Your task to perform on an android device: turn off airplane mode Image 0: 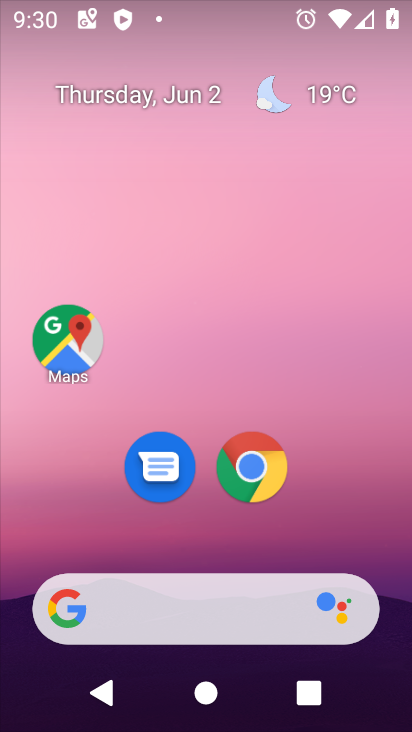
Step 0: drag from (215, 543) to (211, 15)
Your task to perform on an android device: turn off airplane mode Image 1: 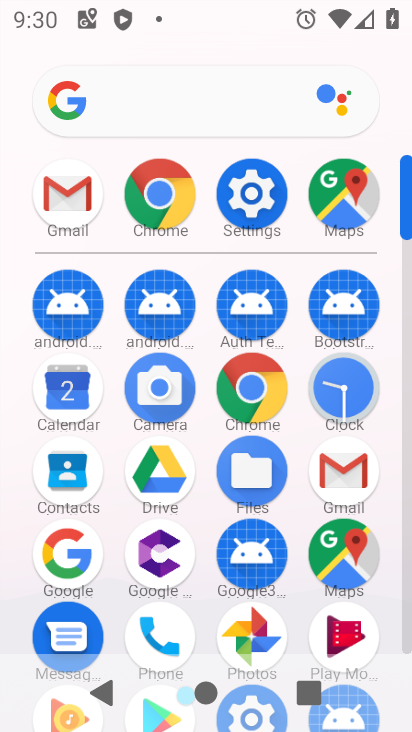
Step 1: click (255, 208)
Your task to perform on an android device: turn off airplane mode Image 2: 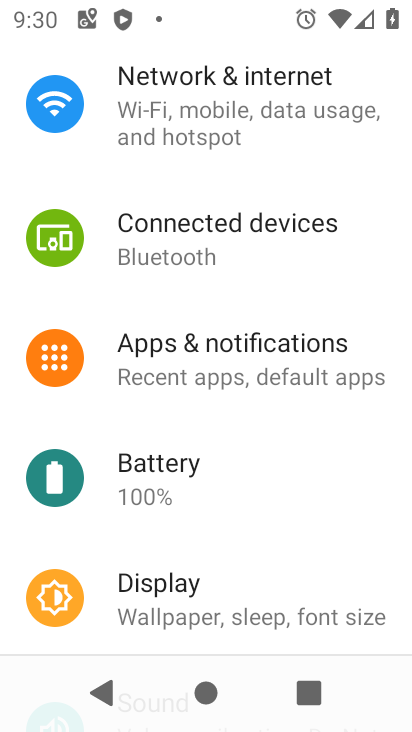
Step 2: click (170, 83)
Your task to perform on an android device: turn off airplane mode Image 3: 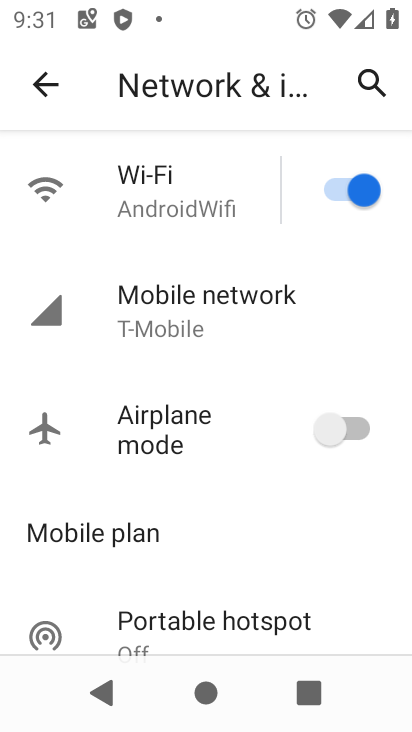
Step 3: task complete